Your task to perform on an android device: delete browsing data in the chrome app Image 0: 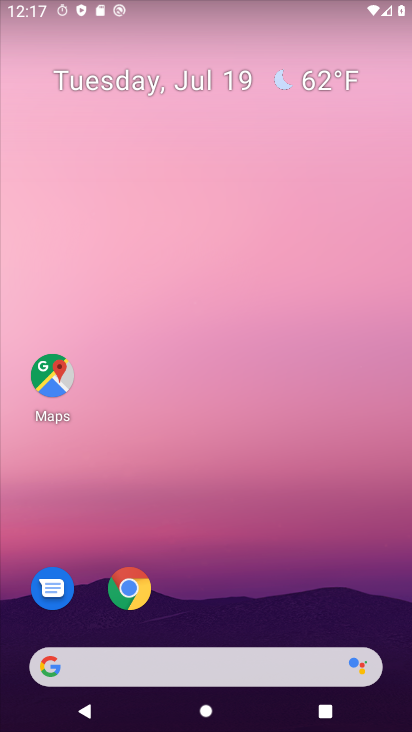
Step 0: click (152, 102)
Your task to perform on an android device: delete browsing data in the chrome app Image 1: 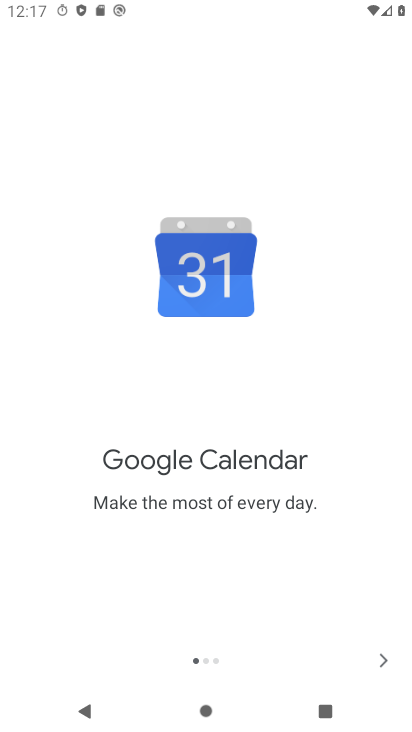
Step 1: click (381, 657)
Your task to perform on an android device: delete browsing data in the chrome app Image 2: 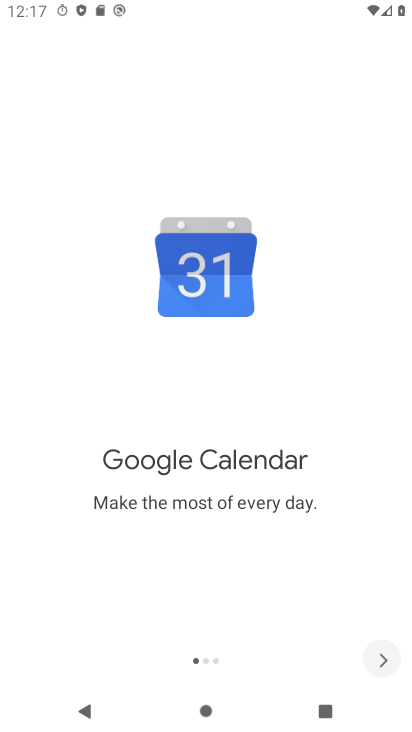
Step 2: click (378, 658)
Your task to perform on an android device: delete browsing data in the chrome app Image 3: 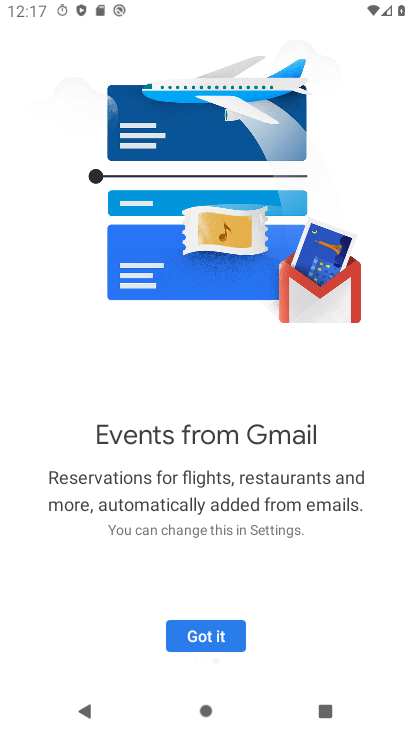
Step 3: click (387, 660)
Your task to perform on an android device: delete browsing data in the chrome app Image 4: 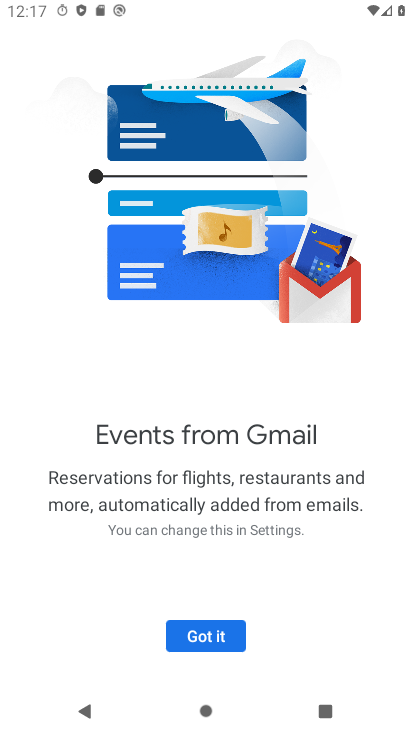
Step 4: click (381, 660)
Your task to perform on an android device: delete browsing data in the chrome app Image 5: 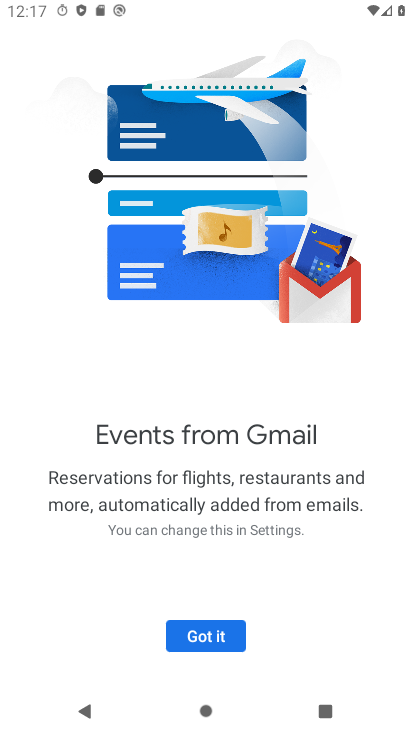
Step 5: click (381, 659)
Your task to perform on an android device: delete browsing data in the chrome app Image 6: 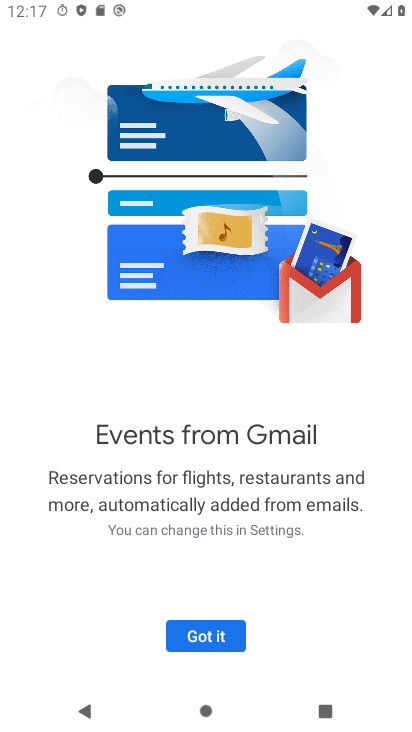
Step 6: click (382, 655)
Your task to perform on an android device: delete browsing data in the chrome app Image 7: 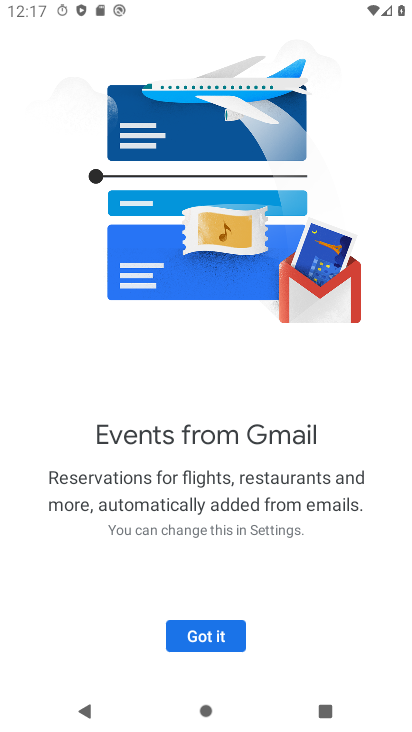
Step 7: click (382, 655)
Your task to perform on an android device: delete browsing data in the chrome app Image 8: 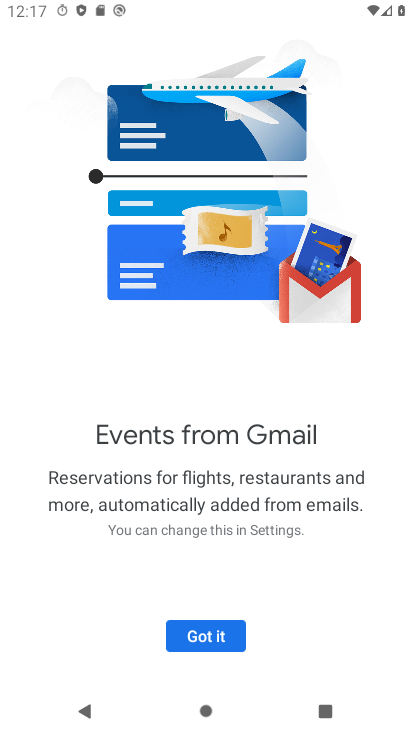
Step 8: press back button
Your task to perform on an android device: delete browsing data in the chrome app Image 9: 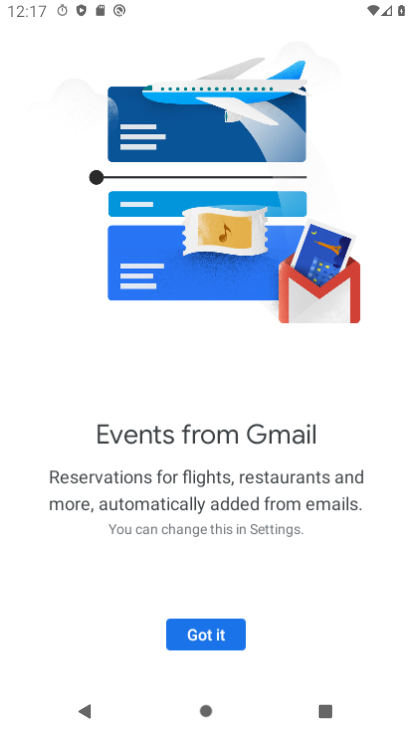
Step 9: press back button
Your task to perform on an android device: delete browsing data in the chrome app Image 10: 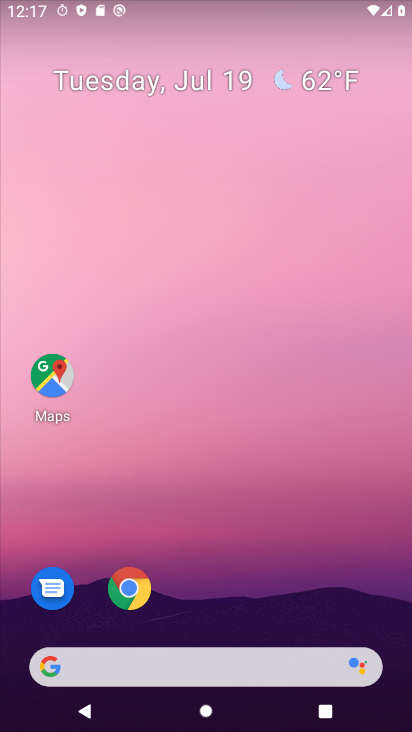
Step 10: drag from (211, 316) to (166, 87)
Your task to perform on an android device: delete browsing data in the chrome app Image 11: 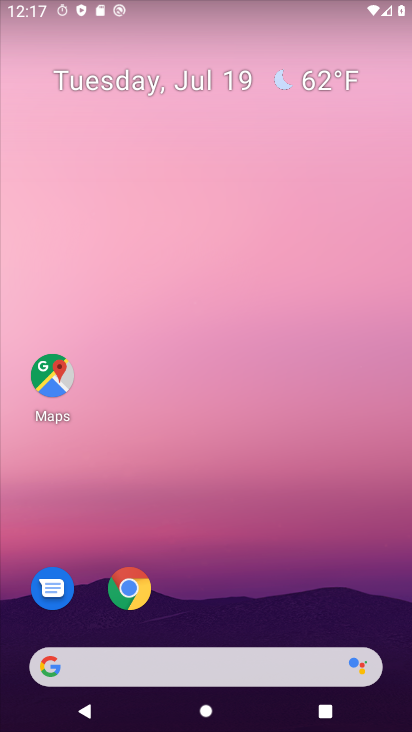
Step 11: click (152, 89)
Your task to perform on an android device: delete browsing data in the chrome app Image 12: 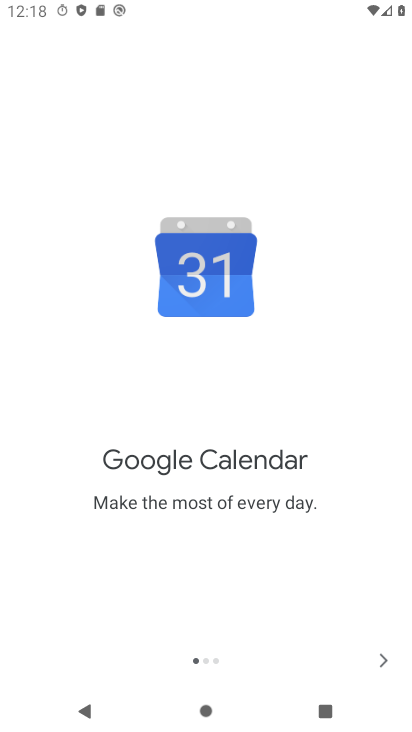
Step 12: press back button
Your task to perform on an android device: delete browsing data in the chrome app Image 13: 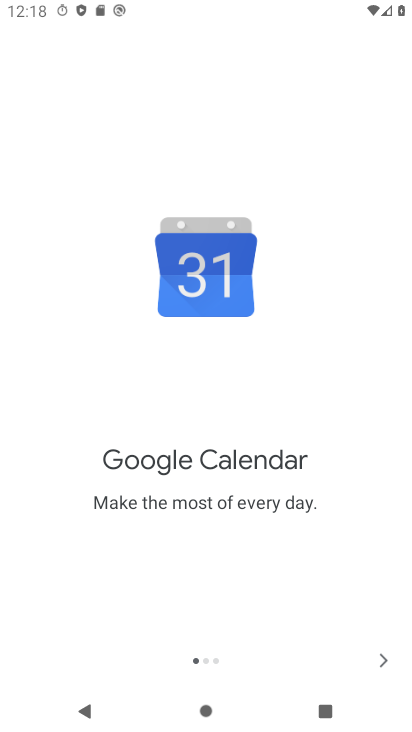
Step 13: press back button
Your task to perform on an android device: delete browsing data in the chrome app Image 14: 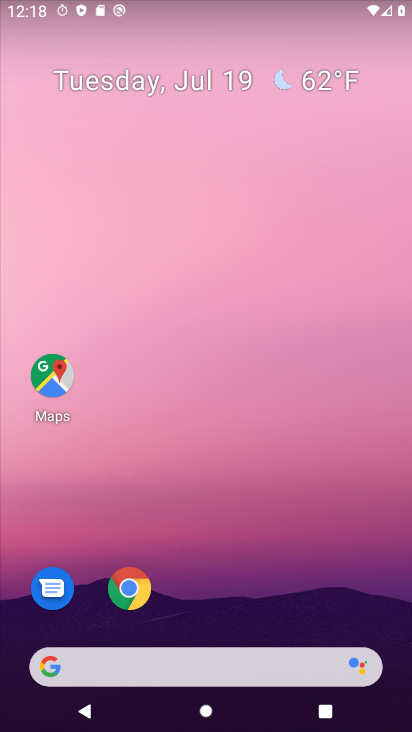
Step 14: press back button
Your task to perform on an android device: delete browsing data in the chrome app Image 15: 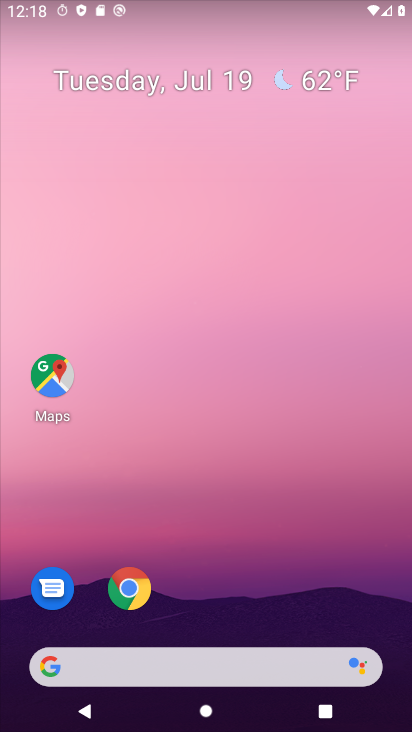
Step 15: press back button
Your task to perform on an android device: delete browsing data in the chrome app Image 16: 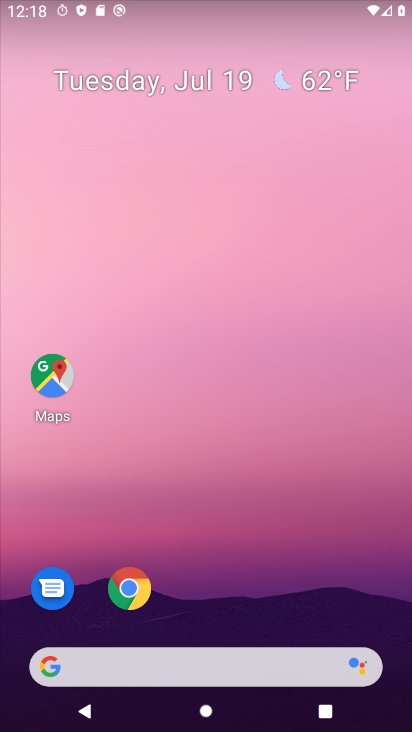
Step 16: drag from (225, 598) to (174, 136)
Your task to perform on an android device: delete browsing data in the chrome app Image 17: 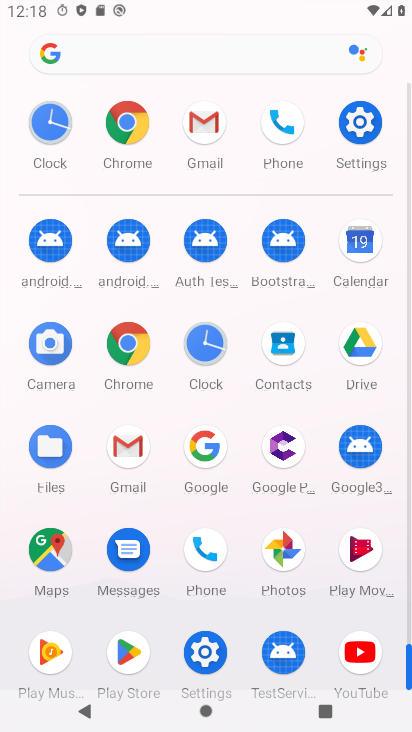
Step 17: click (120, 133)
Your task to perform on an android device: delete browsing data in the chrome app Image 18: 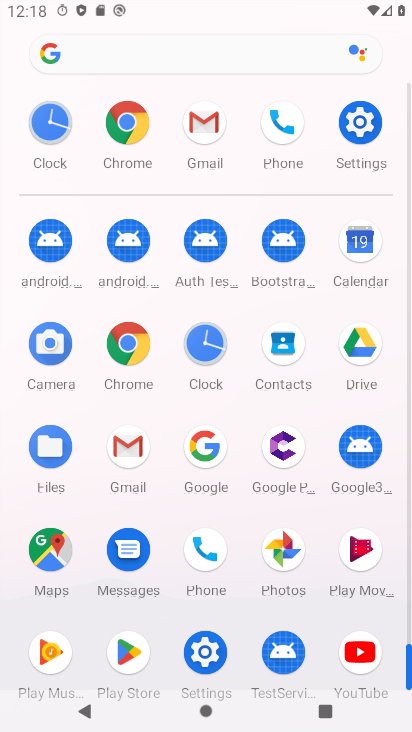
Step 18: click (126, 125)
Your task to perform on an android device: delete browsing data in the chrome app Image 19: 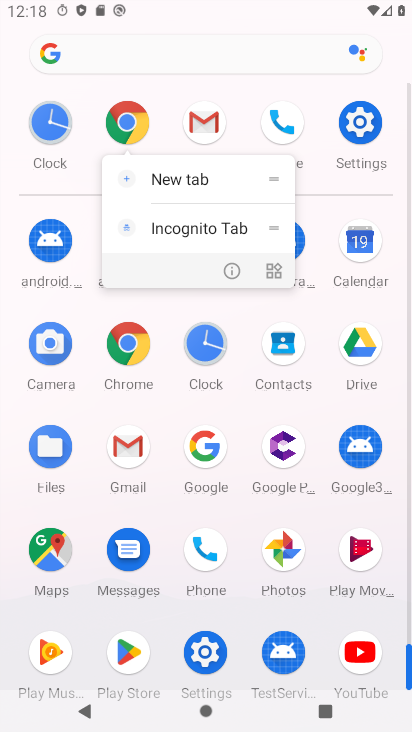
Step 19: click (135, 121)
Your task to perform on an android device: delete browsing data in the chrome app Image 20: 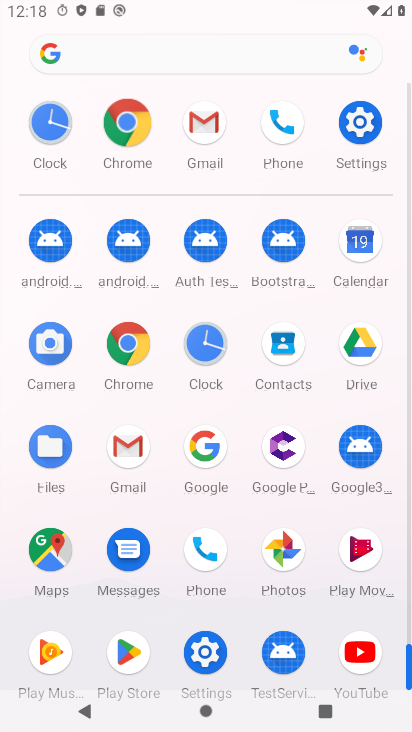
Step 20: click (135, 120)
Your task to perform on an android device: delete browsing data in the chrome app Image 21: 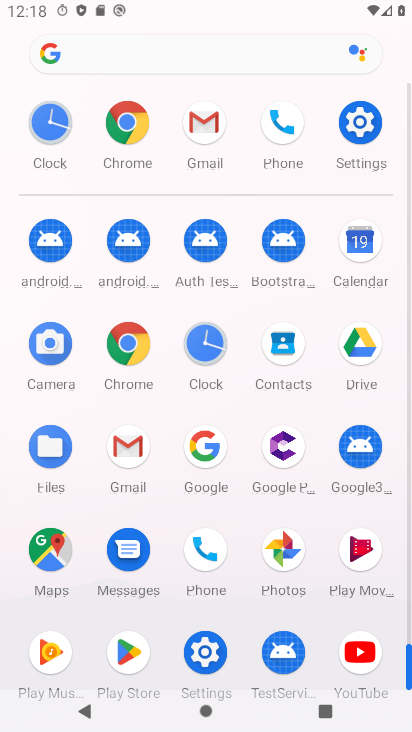
Step 21: click (139, 117)
Your task to perform on an android device: delete browsing data in the chrome app Image 22: 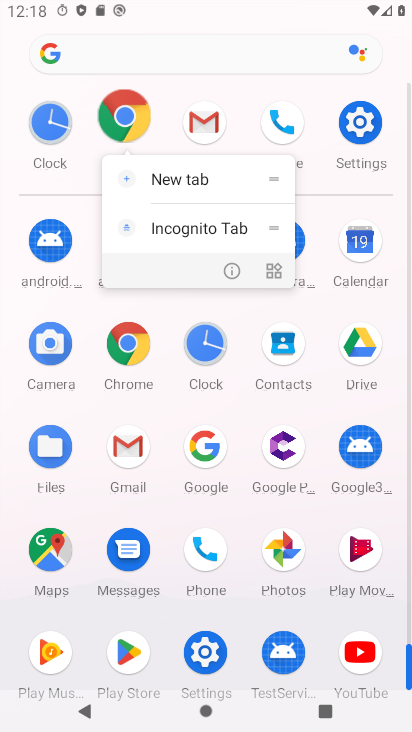
Step 22: click (136, 110)
Your task to perform on an android device: delete browsing data in the chrome app Image 23: 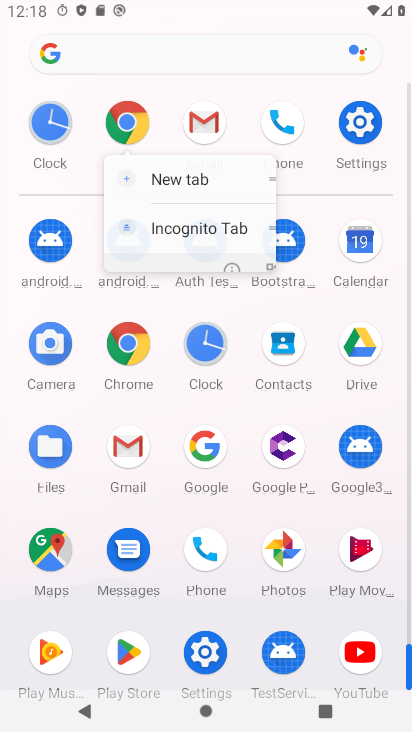
Step 23: click (143, 123)
Your task to perform on an android device: delete browsing data in the chrome app Image 24: 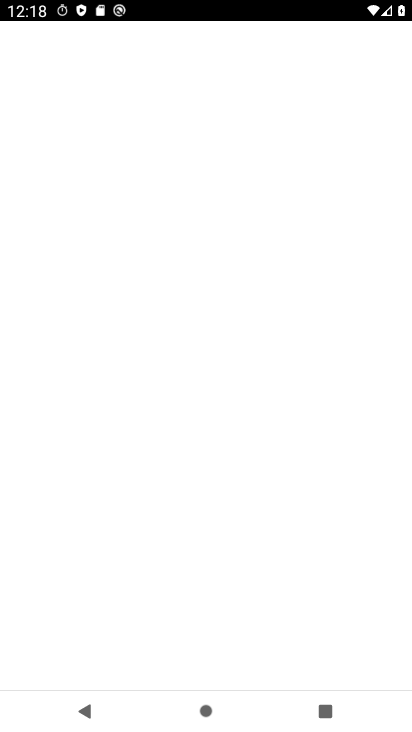
Step 24: click (142, 125)
Your task to perform on an android device: delete browsing data in the chrome app Image 25: 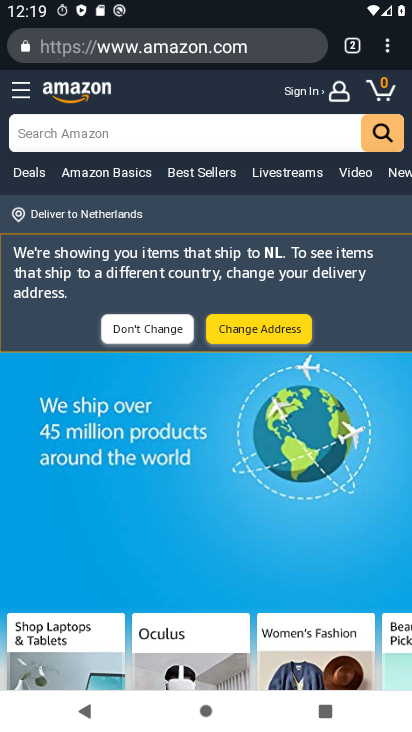
Step 25: drag from (383, 48) to (223, 259)
Your task to perform on an android device: delete browsing data in the chrome app Image 26: 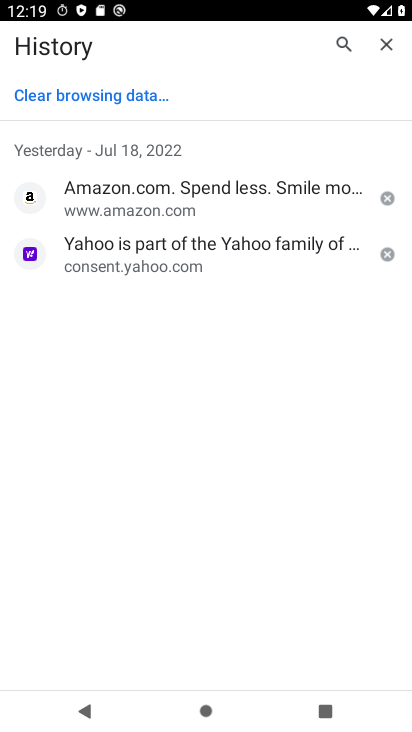
Step 26: click (235, 256)
Your task to perform on an android device: delete browsing data in the chrome app Image 27: 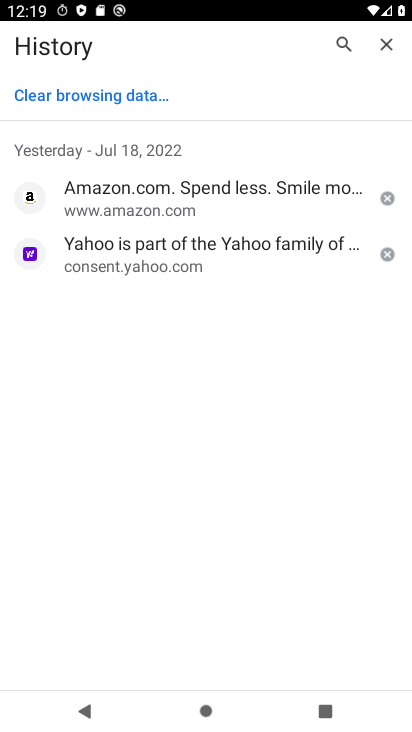
Step 27: click (235, 257)
Your task to perform on an android device: delete browsing data in the chrome app Image 28: 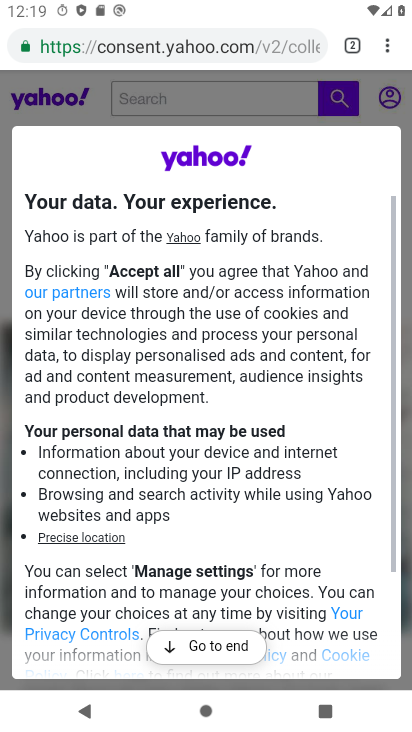
Step 28: task complete